Your task to perform on an android device: check the backup settings in the google photos Image 0: 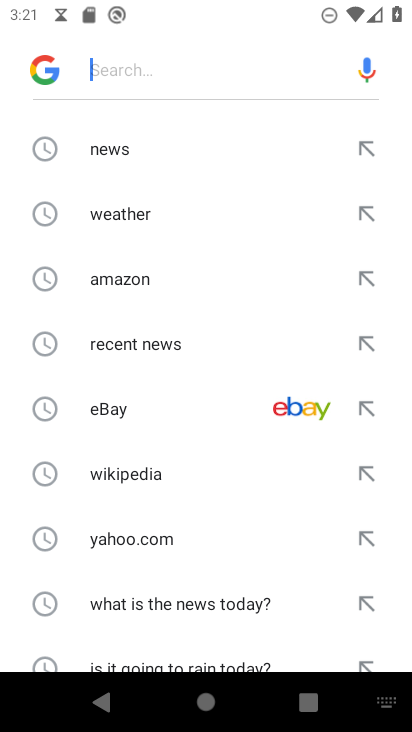
Step 0: press home button
Your task to perform on an android device: check the backup settings in the google photos Image 1: 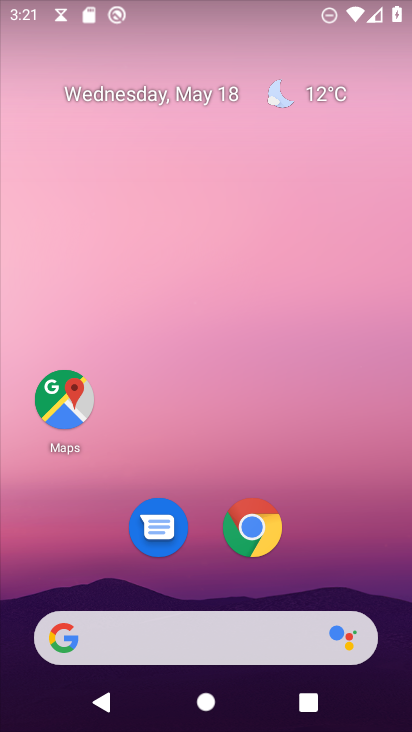
Step 1: drag from (351, 550) to (235, 65)
Your task to perform on an android device: check the backup settings in the google photos Image 2: 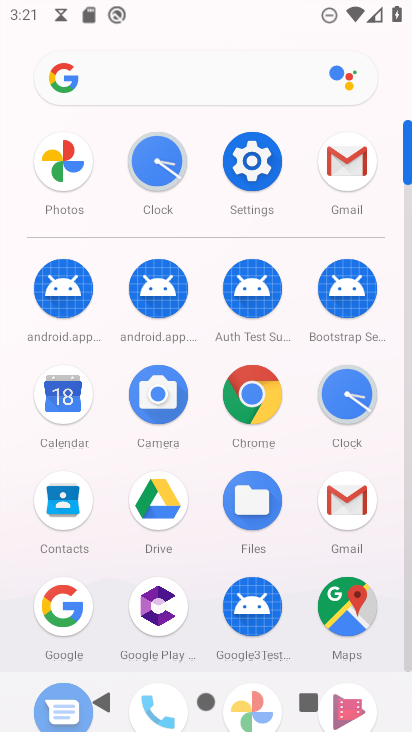
Step 2: drag from (205, 615) to (189, 398)
Your task to perform on an android device: check the backup settings in the google photos Image 3: 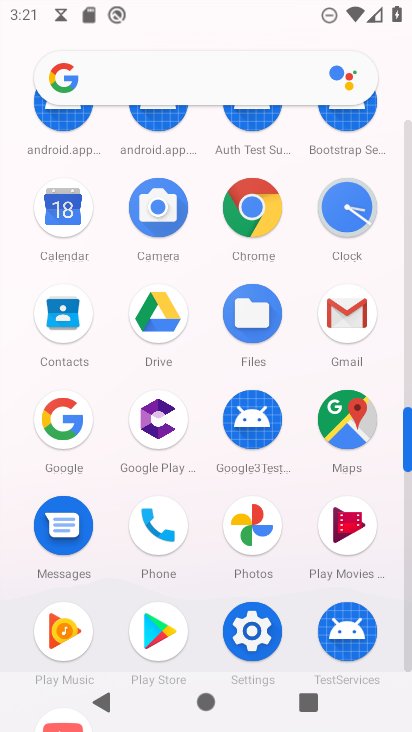
Step 3: click (248, 525)
Your task to perform on an android device: check the backup settings in the google photos Image 4: 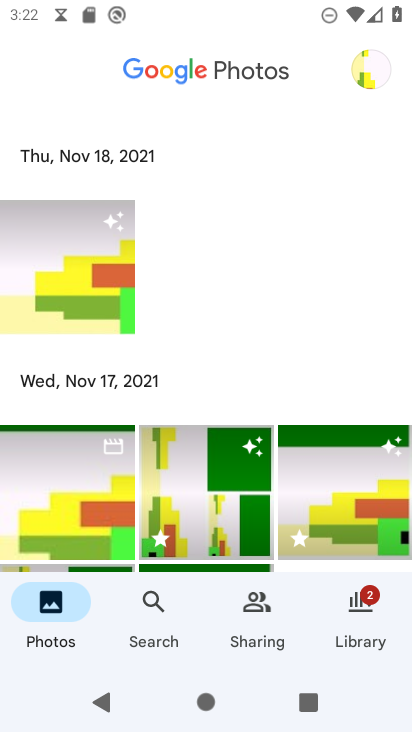
Step 4: click (365, 65)
Your task to perform on an android device: check the backup settings in the google photos Image 5: 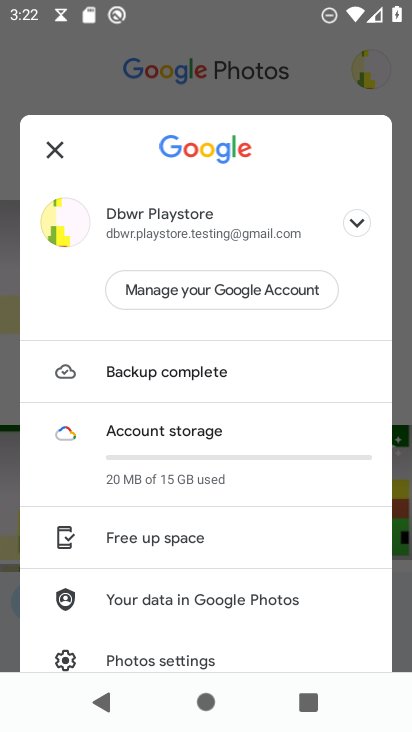
Step 5: click (180, 652)
Your task to perform on an android device: check the backup settings in the google photos Image 6: 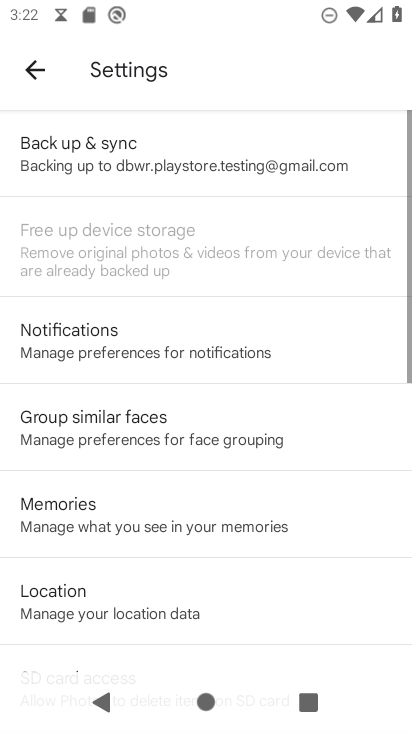
Step 6: click (162, 154)
Your task to perform on an android device: check the backup settings in the google photos Image 7: 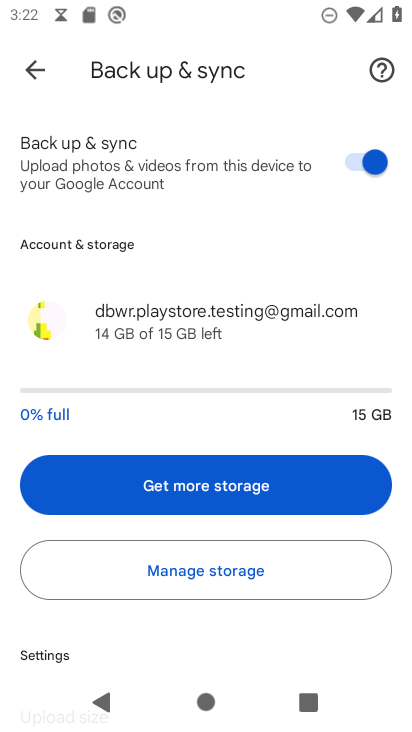
Step 7: task complete